Your task to perform on an android device: Search for vegetarian restaurants on Maps Image 0: 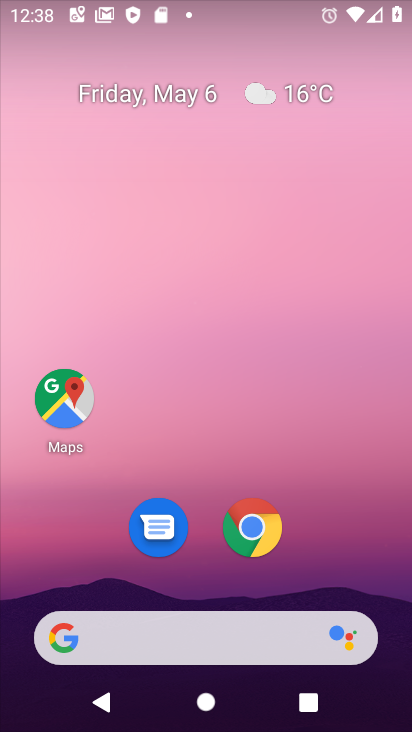
Step 0: click (52, 397)
Your task to perform on an android device: Search for vegetarian restaurants on Maps Image 1: 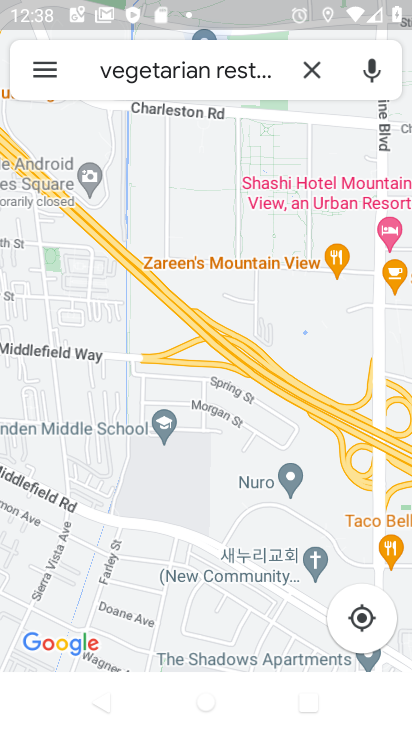
Step 1: click (275, 72)
Your task to perform on an android device: Search for vegetarian restaurants on Maps Image 2: 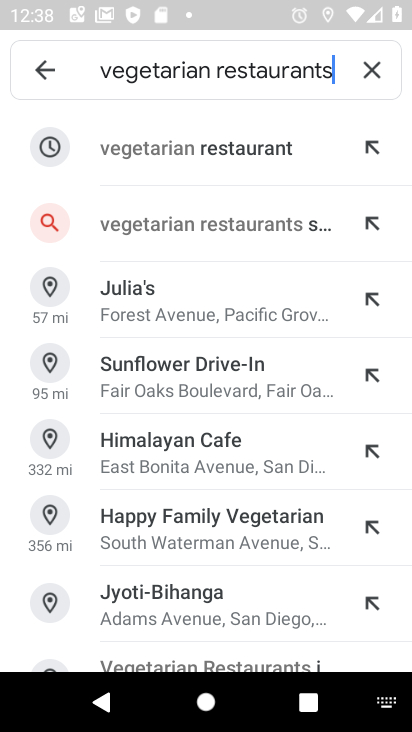
Step 2: click (160, 146)
Your task to perform on an android device: Search for vegetarian restaurants on Maps Image 3: 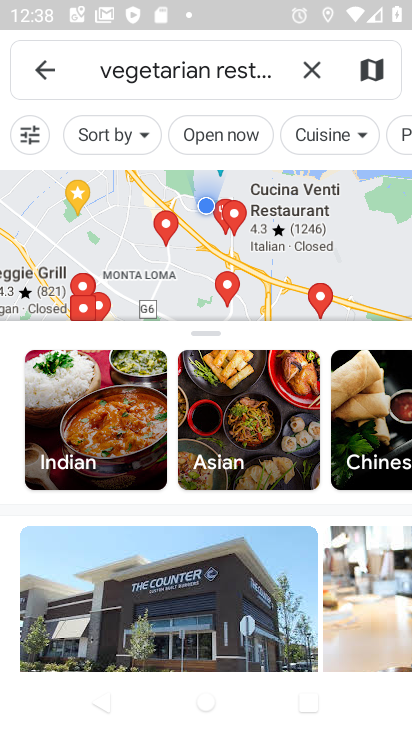
Step 3: task complete